Your task to perform on an android device: open a new tab in the chrome app Image 0: 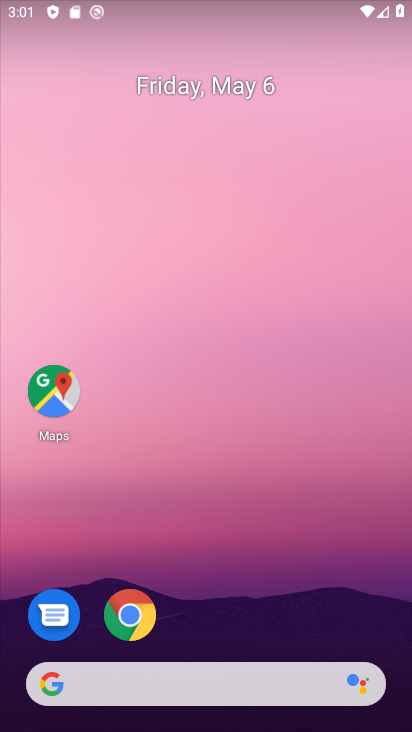
Step 0: click (139, 626)
Your task to perform on an android device: open a new tab in the chrome app Image 1: 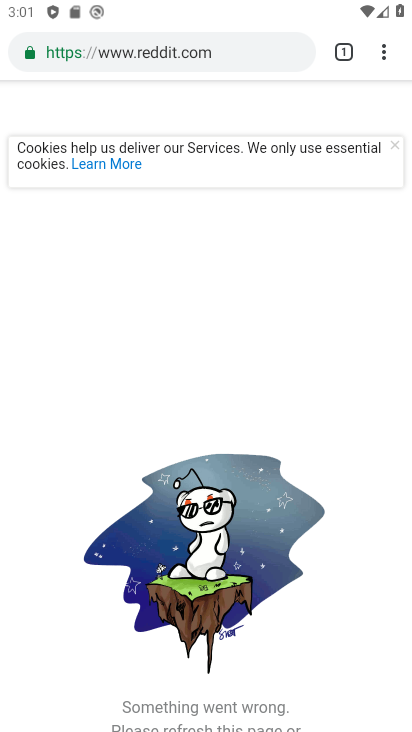
Step 1: task complete